Your task to perform on an android device: Open battery settings Image 0: 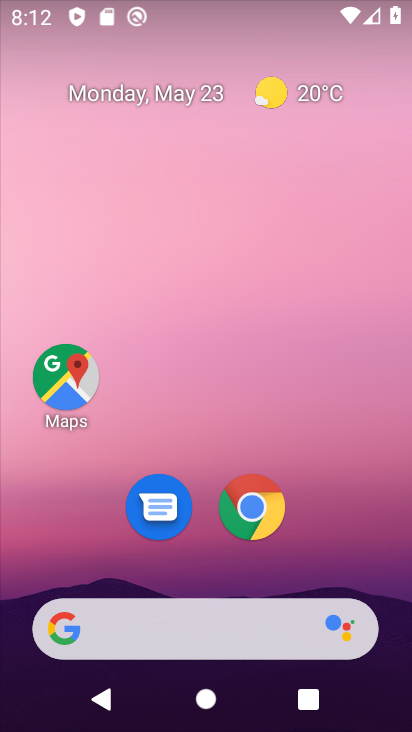
Step 0: drag from (340, 559) to (302, 6)
Your task to perform on an android device: Open battery settings Image 1: 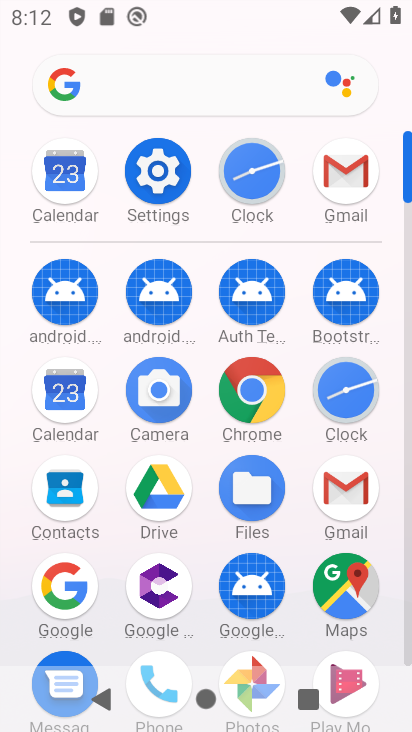
Step 1: click (170, 171)
Your task to perform on an android device: Open battery settings Image 2: 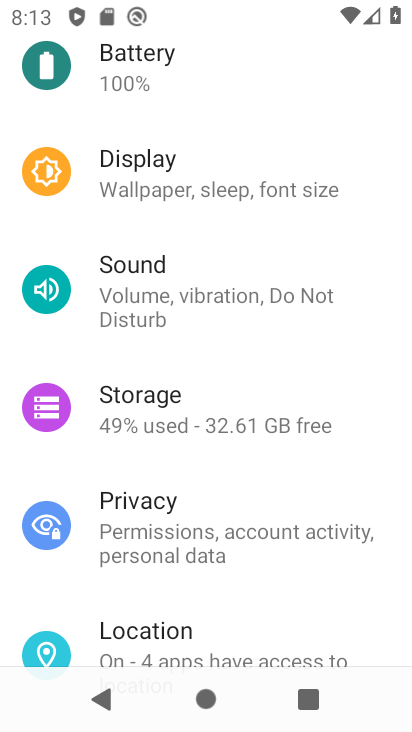
Step 2: click (140, 83)
Your task to perform on an android device: Open battery settings Image 3: 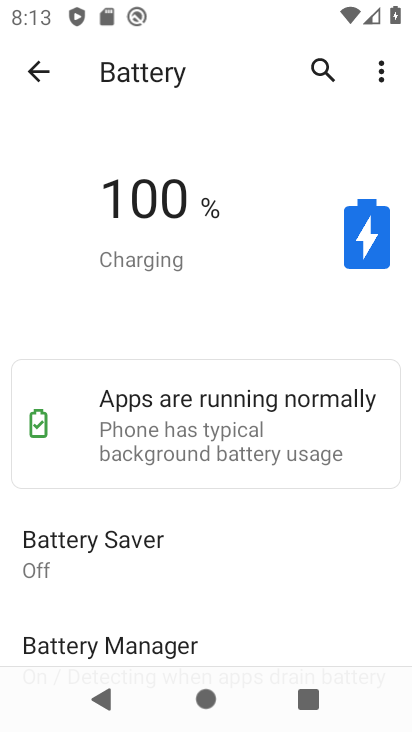
Step 3: task complete